Your task to perform on an android device: toggle notification dots Image 0: 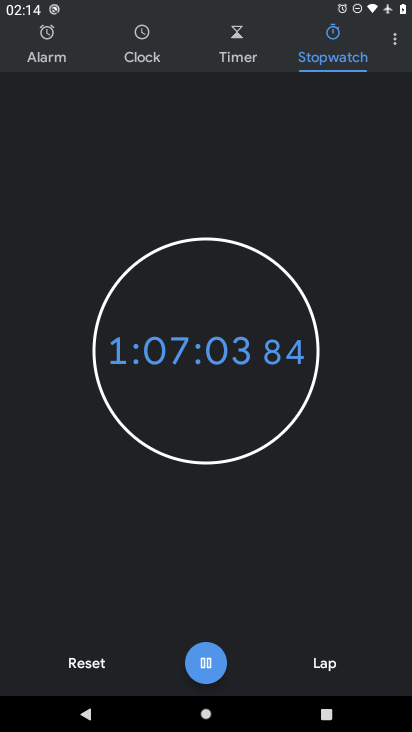
Step 0: press home button
Your task to perform on an android device: toggle notification dots Image 1: 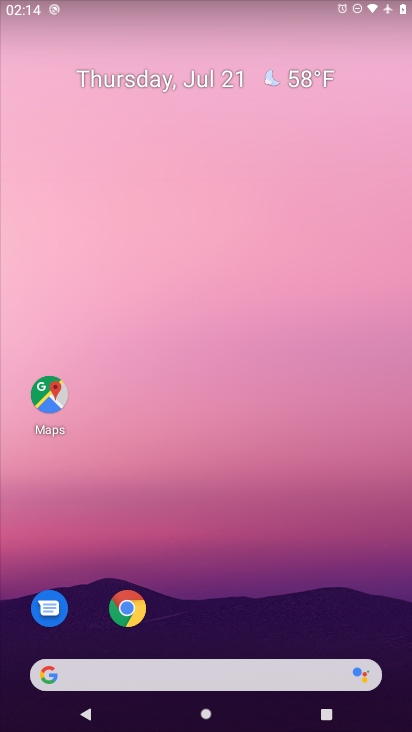
Step 1: drag from (215, 620) to (271, 8)
Your task to perform on an android device: toggle notification dots Image 2: 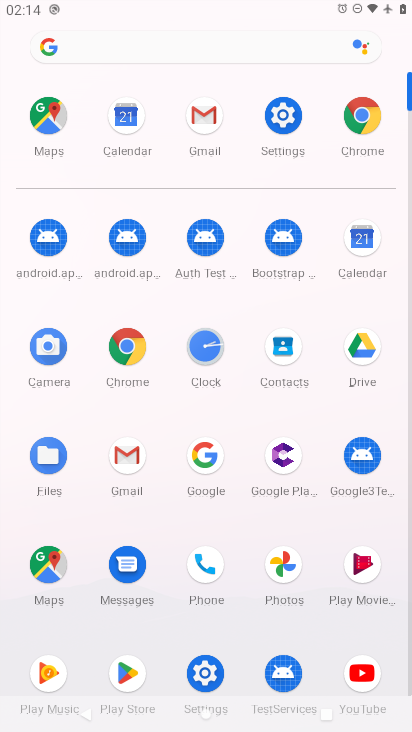
Step 2: click (276, 109)
Your task to perform on an android device: toggle notification dots Image 3: 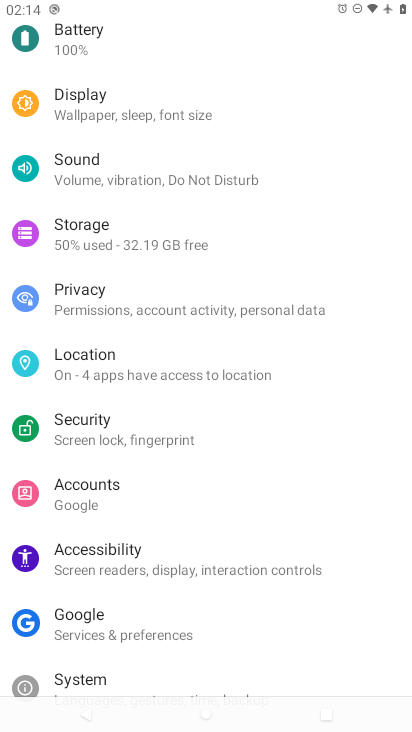
Step 3: drag from (291, 121) to (218, 729)
Your task to perform on an android device: toggle notification dots Image 4: 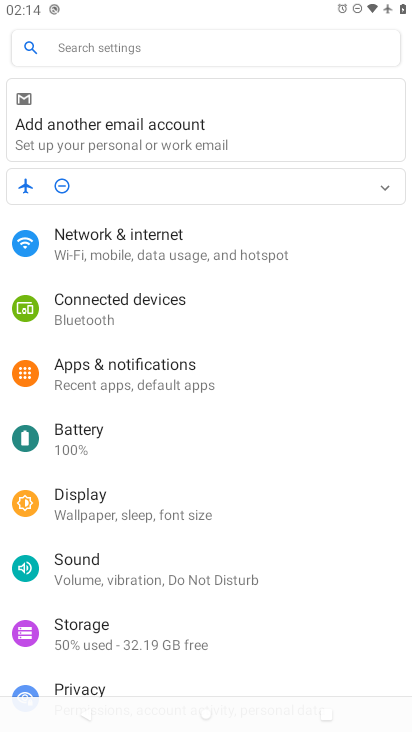
Step 4: click (114, 378)
Your task to perform on an android device: toggle notification dots Image 5: 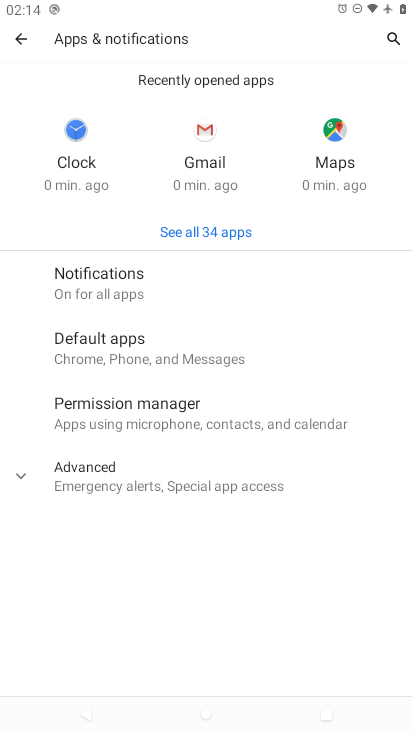
Step 5: click (92, 284)
Your task to perform on an android device: toggle notification dots Image 6: 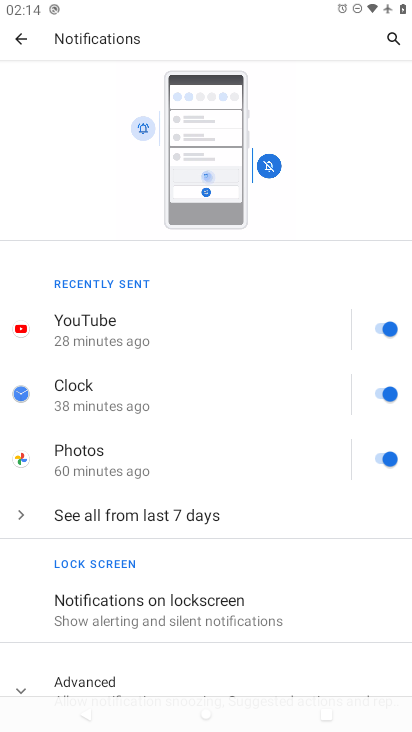
Step 6: drag from (300, 648) to (288, 234)
Your task to perform on an android device: toggle notification dots Image 7: 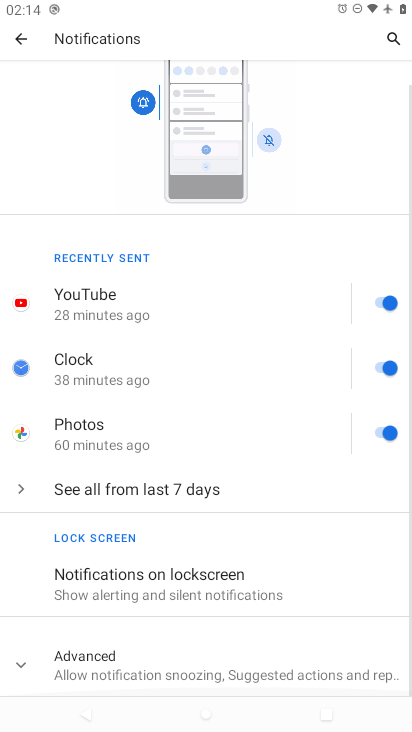
Step 7: click (90, 675)
Your task to perform on an android device: toggle notification dots Image 8: 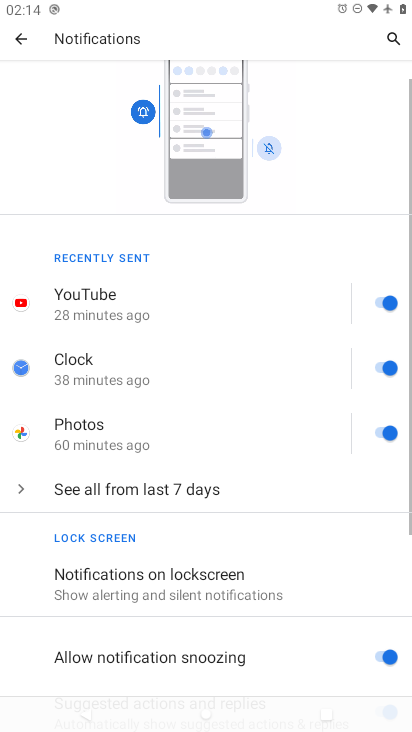
Step 8: drag from (277, 616) to (296, 208)
Your task to perform on an android device: toggle notification dots Image 9: 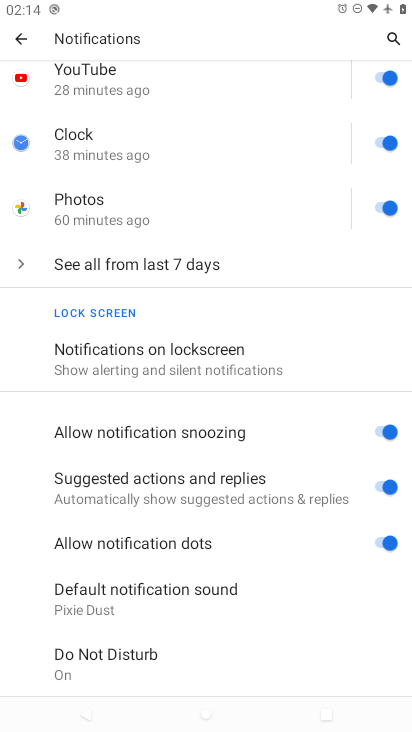
Step 9: click (384, 544)
Your task to perform on an android device: toggle notification dots Image 10: 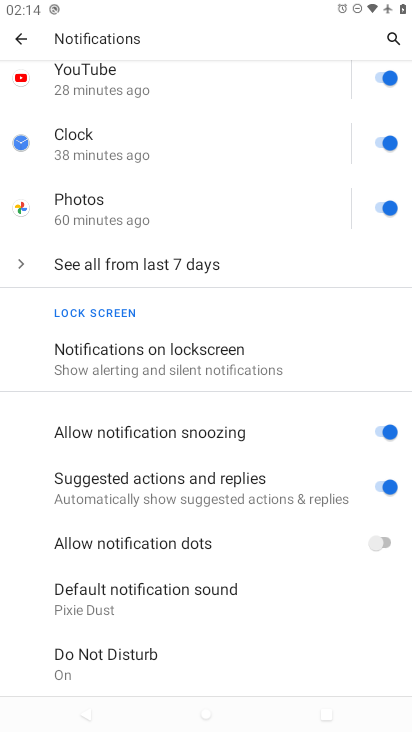
Step 10: task complete